Your task to perform on an android device: turn on sleep mode Image 0: 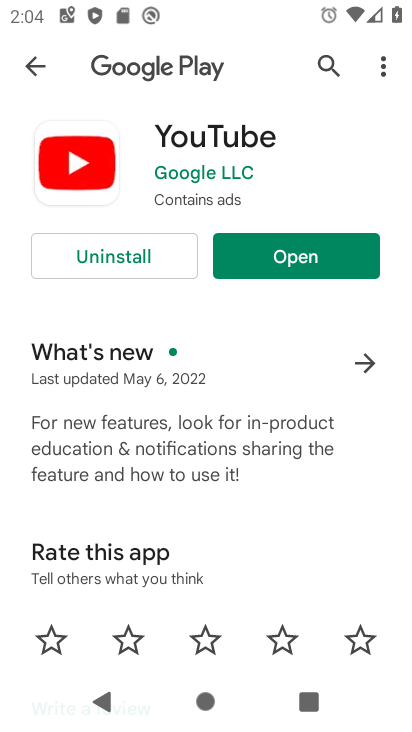
Step 0: press home button
Your task to perform on an android device: turn on sleep mode Image 1: 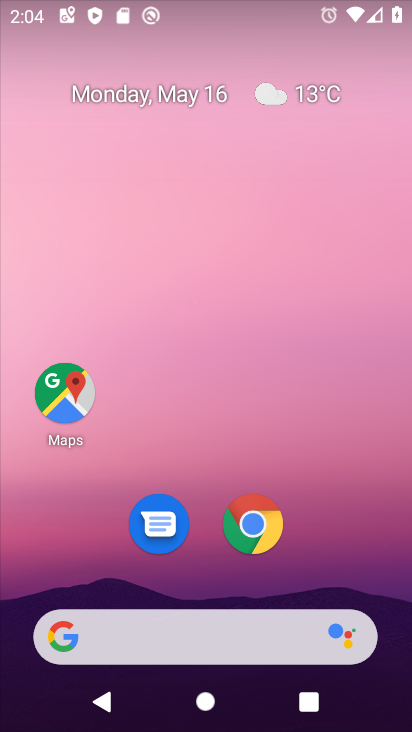
Step 1: drag from (211, 472) to (215, 14)
Your task to perform on an android device: turn on sleep mode Image 2: 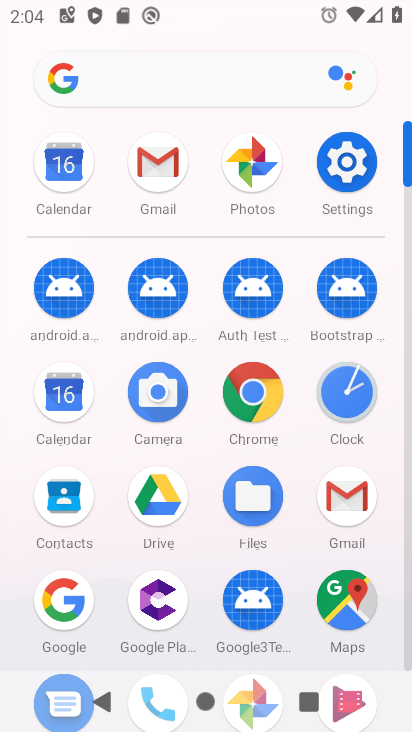
Step 2: click (339, 161)
Your task to perform on an android device: turn on sleep mode Image 3: 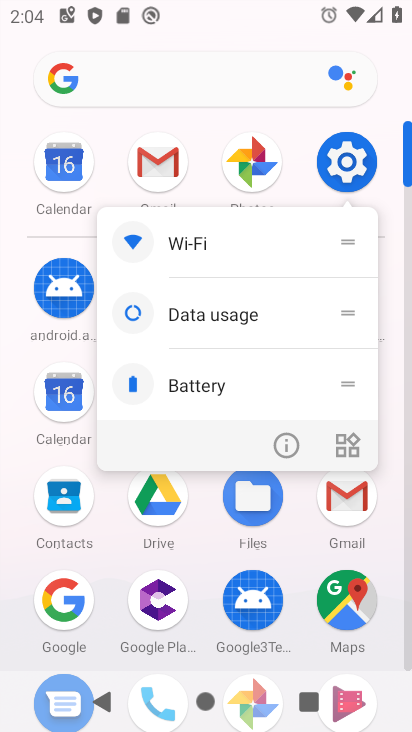
Step 3: click (339, 158)
Your task to perform on an android device: turn on sleep mode Image 4: 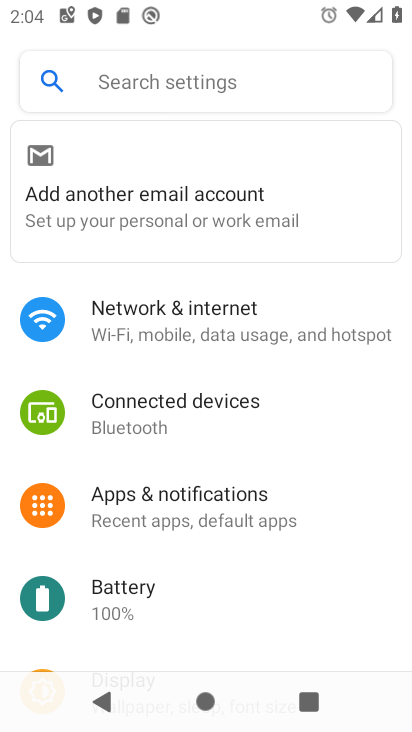
Step 4: drag from (224, 567) to (271, 223)
Your task to perform on an android device: turn on sleep mode Image 5: 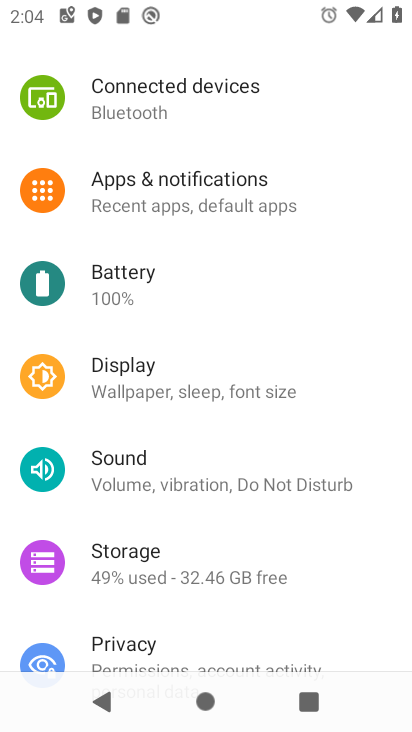
Step 5: click (216, 390)
Your task to perform on an android device: turn on sleep mode Image 6: 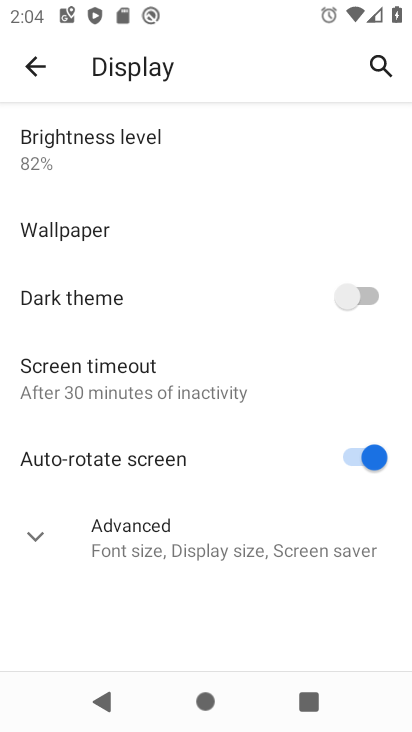
Step 6: click (34, 539)
Your task to perform on an android device: turn on sleep mode Image 7: 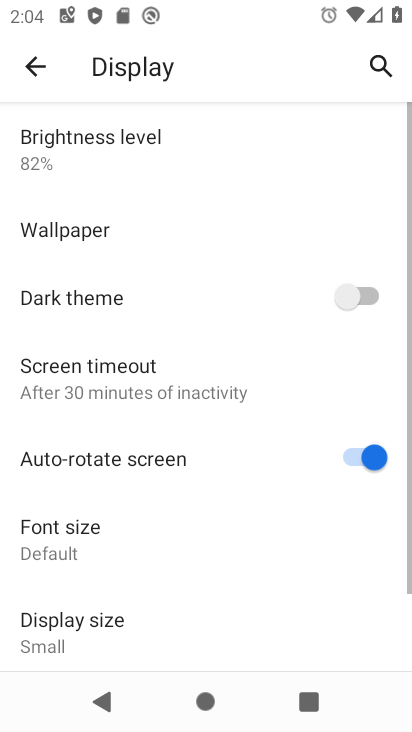
Step 7: task complete